Your task to perform on an android device: Go to Maps Image 0: 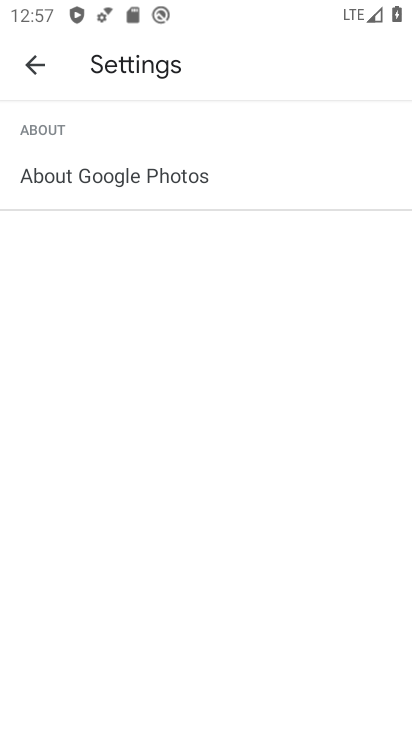
Step 0: press home button
Your task to perform on an android device: Go to Maps Image 1: 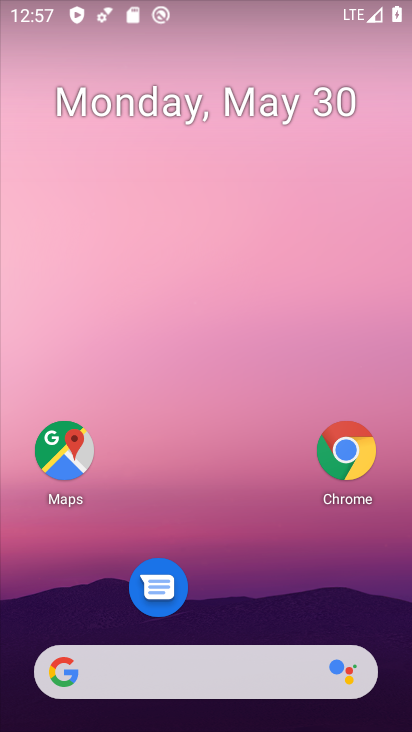
Step 1: click (65, 448)
Your task to perform on an android device: Go to Maps Image 2: 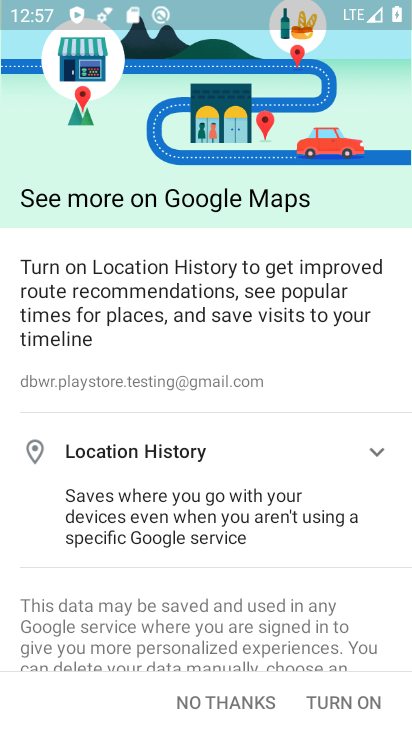
Step 2: click (247, 695)
Your task to perform on an android device: Go to Maps Image 3: 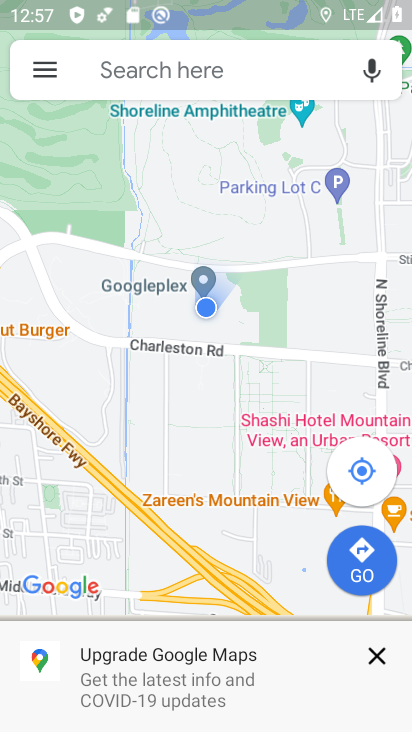
Step 3: task complete